Your task to perform on an android device: toggle improve location accuracy Image 0: 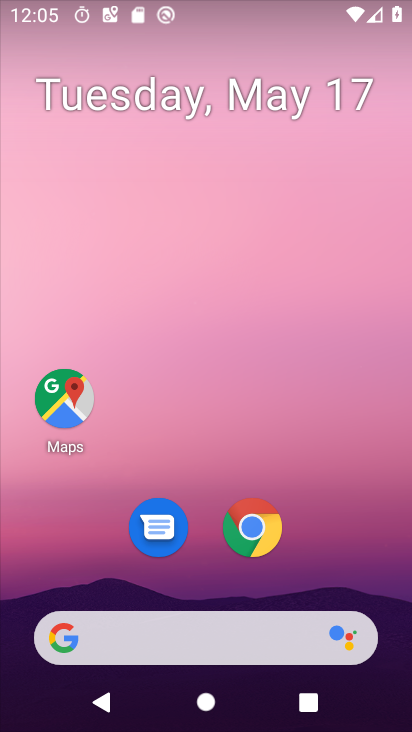
Step 0: drag from (303, 575) to (313, 148)
Your task to perform on an android device: toggle improve location accuracy Image 1: 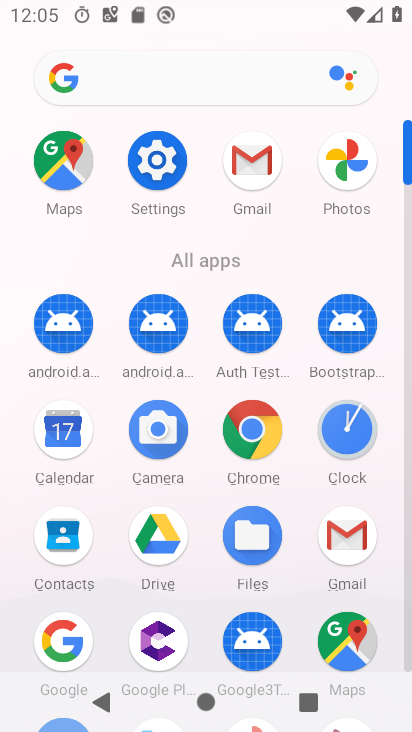
Step 1: click (182, 168)
Your task to perform on an android device: toggle improve location accuracy Image 2: 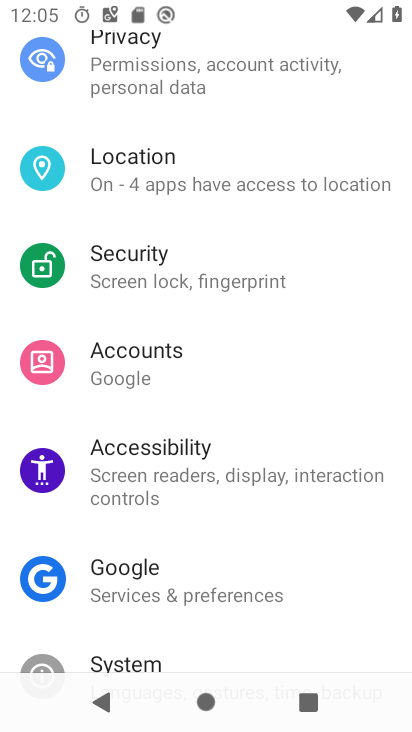
Step 2: click (182, 168)
Your task to perform on an android device: toggle improve location accuracy Image 3: 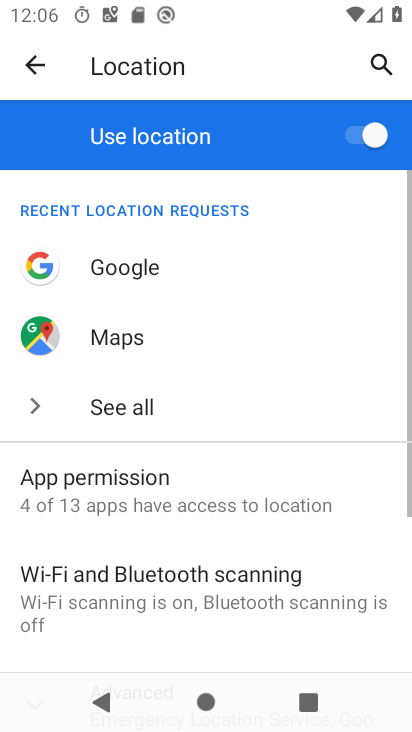
Step 3: drag from (165, 596) to (178, 245)
Your task to perform on an android device: toggle improve location accuracy Image 4: 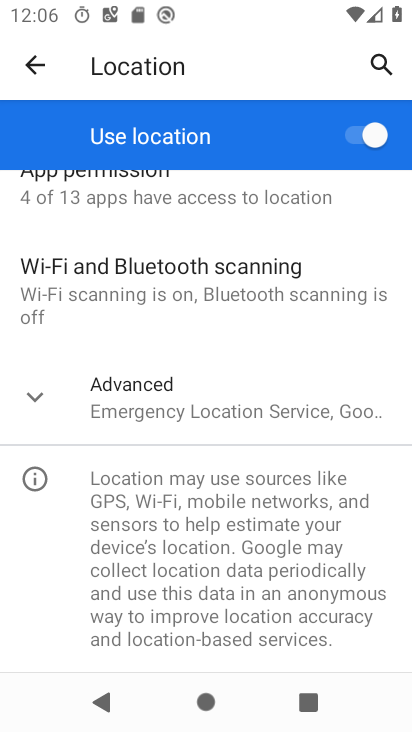
Step 4: click (45, 394)
Your task to perform on an android device: toggle improve location accuracy Image 5: 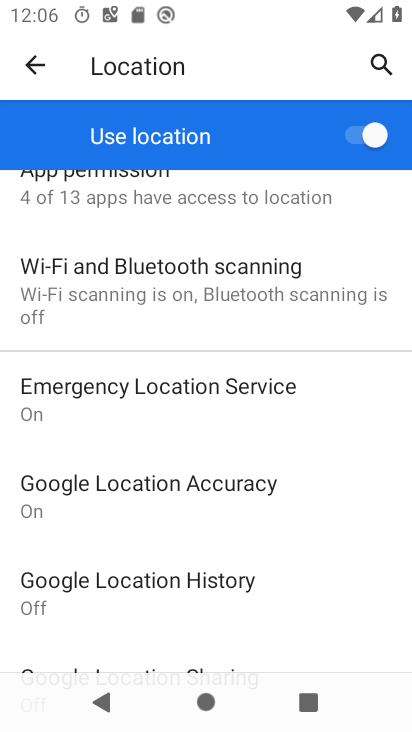
Step 5: click (179, 494)
Your task to perform on an android device: toggle improve location accuracy Image 6: 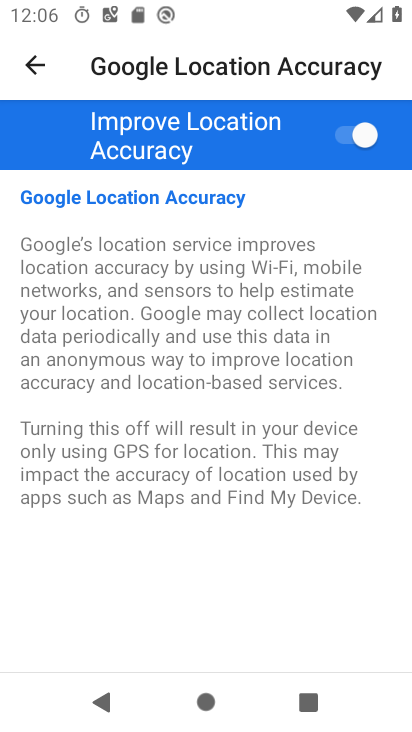
Step 6: click (350, 132)
Your task to perform on an android device: toggle improve location accuracy Image 7: 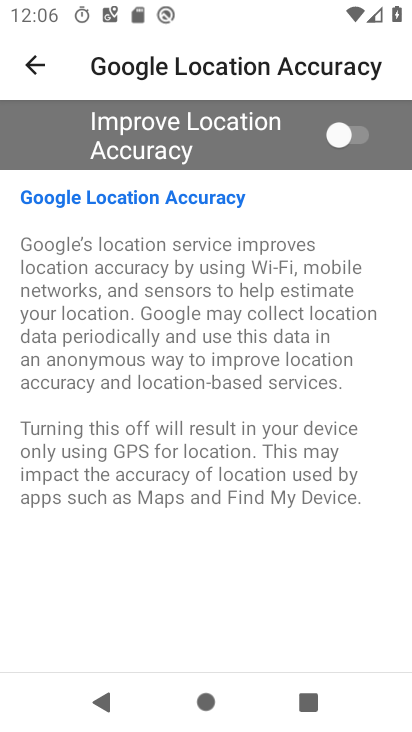
Step 7: task complete